Your task to perform on an android device: turn off data saver in the chrome app Image 0: 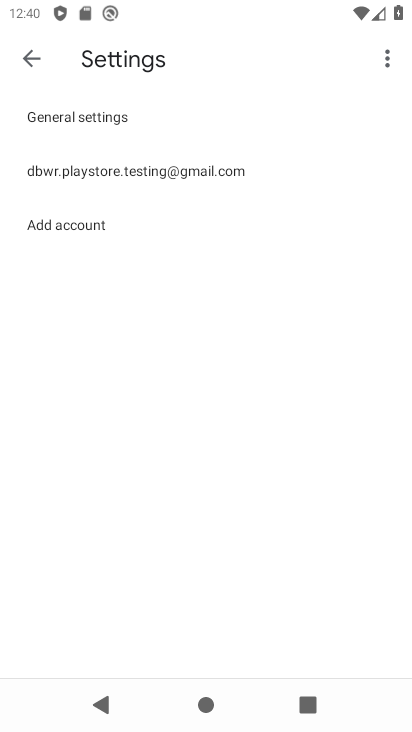
Step 0: click (117, 544)
Your task to perform on an android device: turn off data saver in the chrome app Image 1: 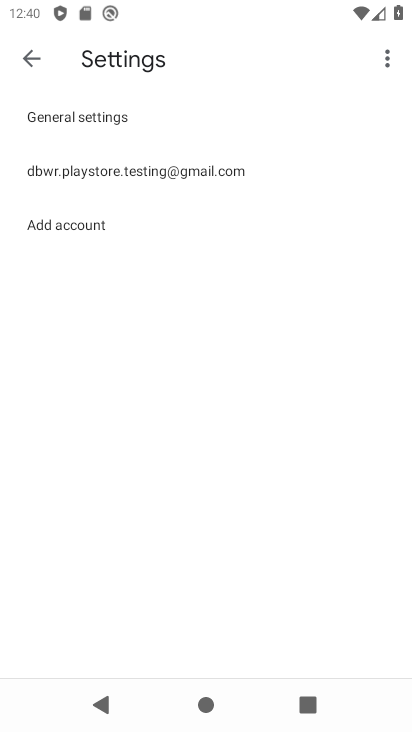
Step 1: press back button
Your task to perform on an android device: turn off data saver in the chrome app Image 2: 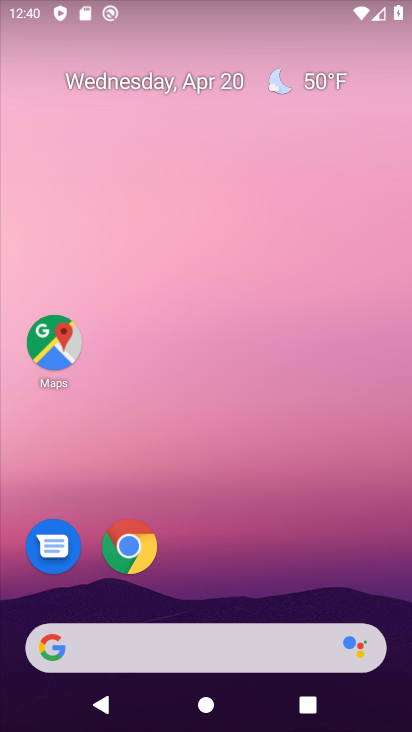
Step 2: click (130, 550)
Your task to perform on an android device: turn off data saver in the chrome app Image 3: 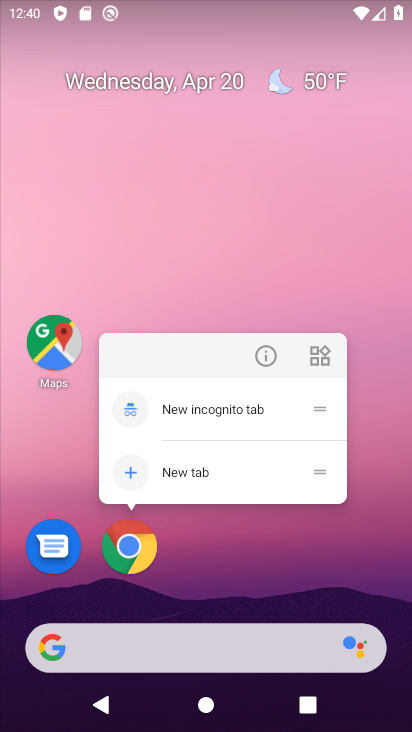
Step 3: click (130, 533)
Your task to perform on an android device: turn off data saver in the chrome app Image 4: 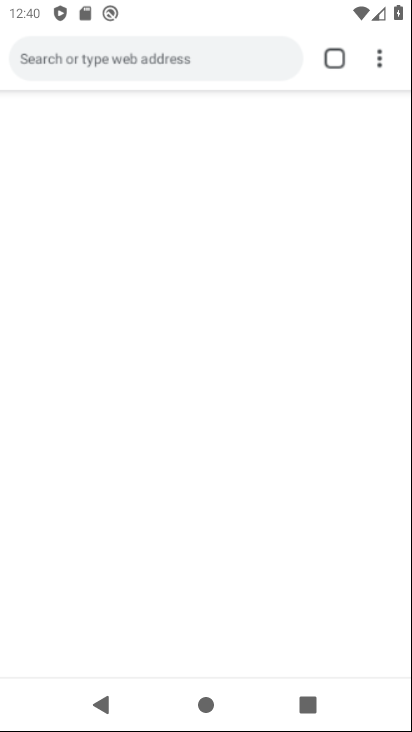
Step 4: drag from (378, 69) to (291, 342)
Your task to perform on an android device: turn off data saver in the chrome app Image 5: 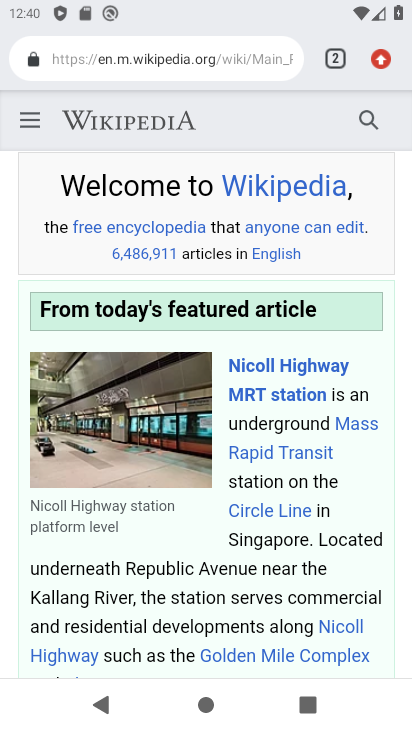
Step 5: drag from (379, 56) to (199, 565)
Your task to perform on an android device: turn off data saver in the chrome app Image 6: 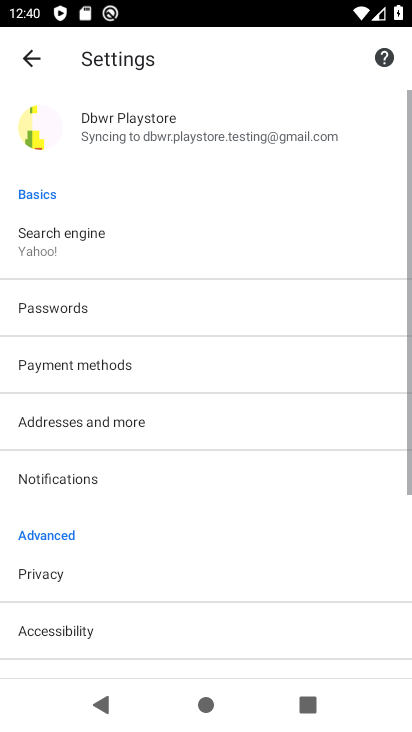
Step 6: drag from (158, 555) to (217, 43)
Your task to perform on an android device: turn off data saver in the chrome app Image 7: 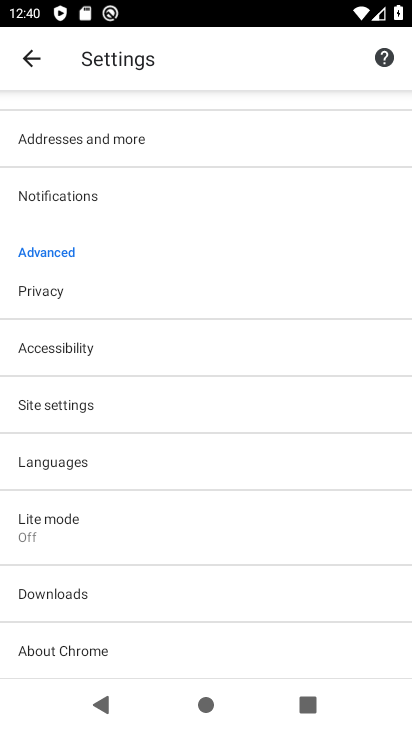
Step 7: click (72, 520)
Your task to perform on an android device: turn off data saver in the chrome app Image 8: 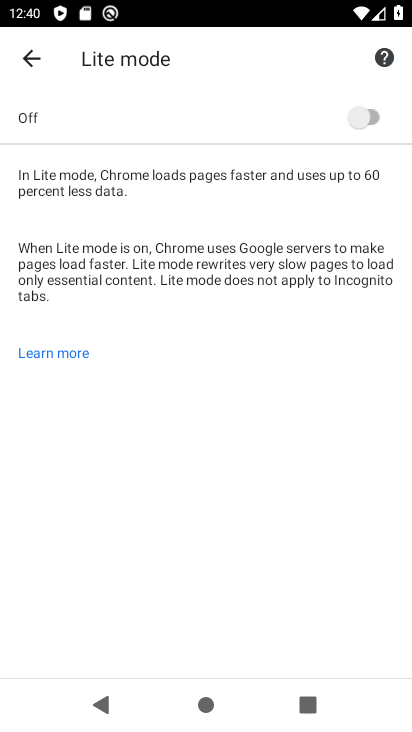
Step 8: task complete